Your task to perform on an android device: change the clock style Image 0: 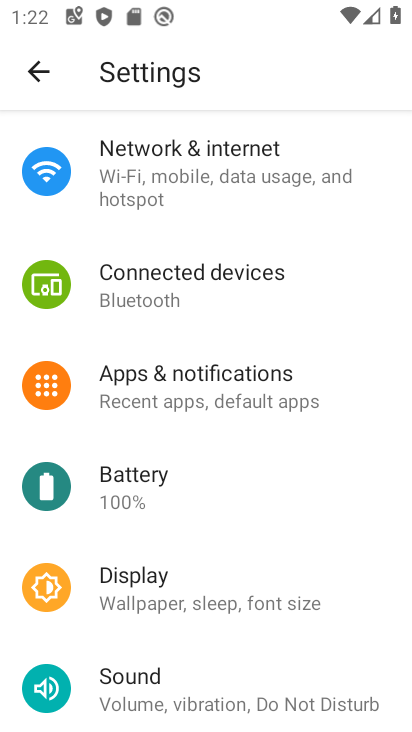
Step 0: press home button
Your task to perform on an android device: change the clock style Image 1: 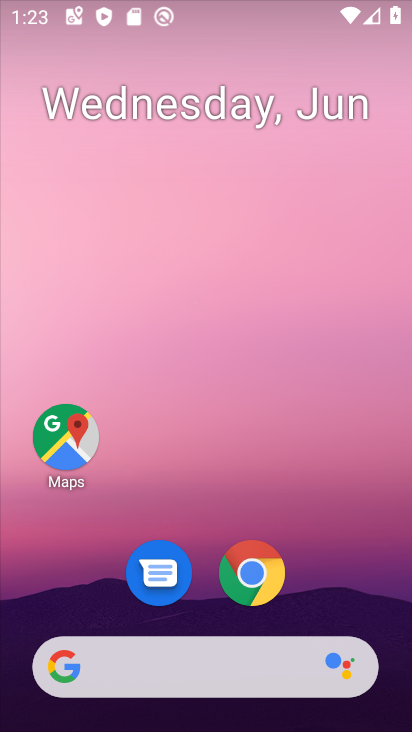
Step 1: drag from (376, 543) to (352, 163)
Your task to perform on an android device: change the clock style Image 2: 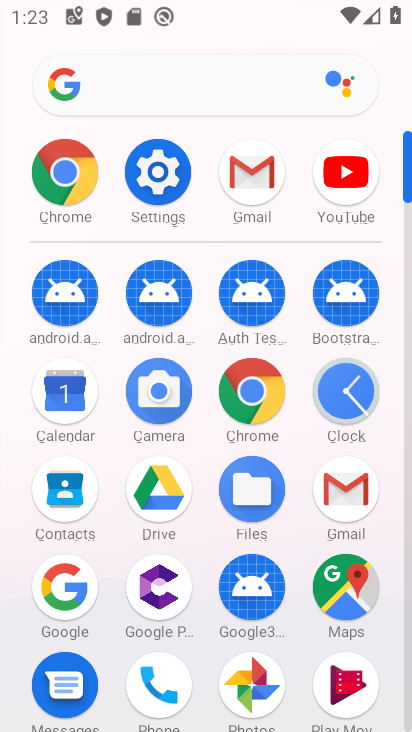
Step 2: click (342, 395)
Your task to perform on an android device: change the clock style Image 3: 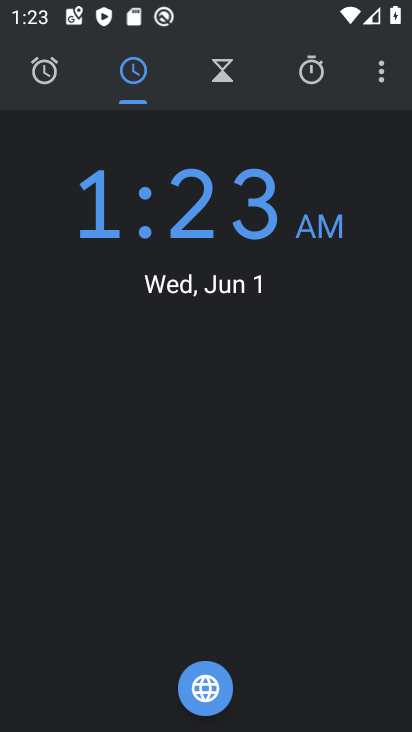
Step 3: drag from (397, 82) to (313, 152)
Your task to perform on an android device: change the clock style Image 4: 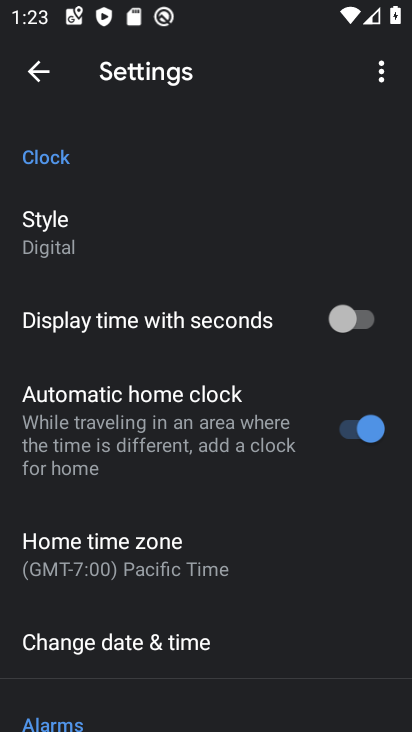
Step 4: click (130, 229)
Your task to perform on an android device: change the clock style Image 5: 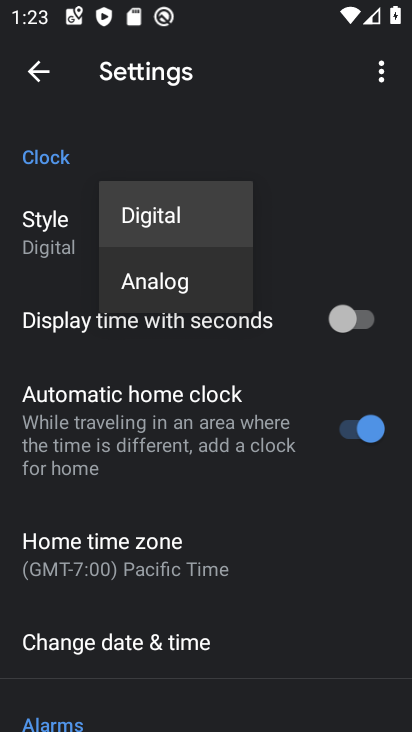
Step 5: click (135, 276)
Your task to perform on an android device: change the clock style Image 6: 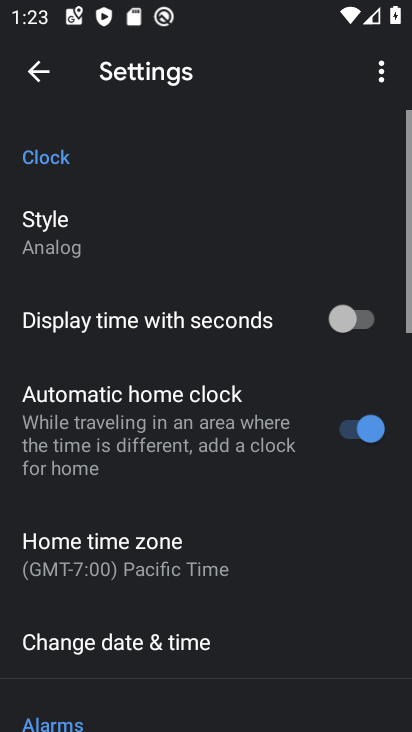
Step 6: task complete